Your task to perform on an android device: Go to network settings Image 0: 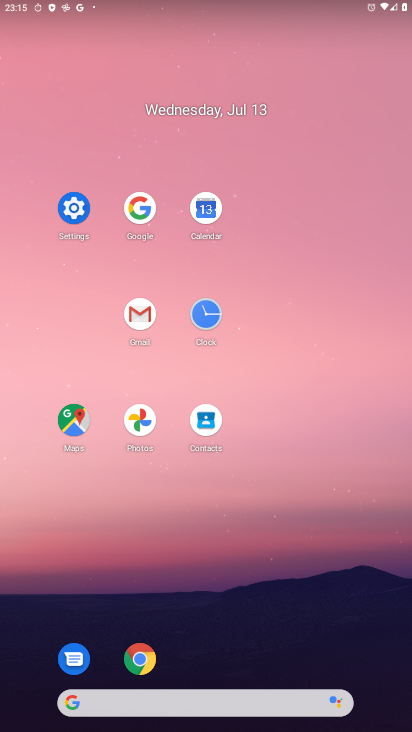
Step 0: click (81, 212)
Your task to perform on an android device: Go to network settings Image 1: 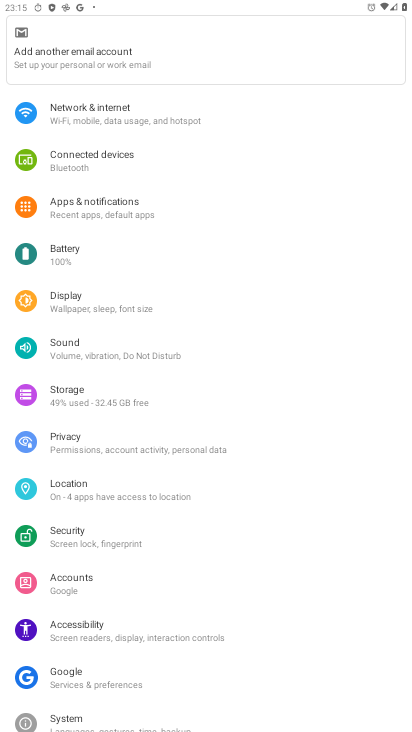
Step 1: click (228, 129)
Your task to perform on an android device: Go to network settings Image 2: 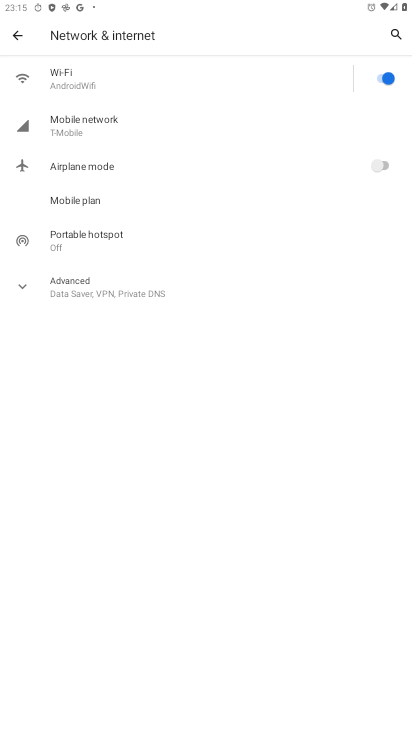
Step 2: task complete